Your task to perform on an android device: turn notification dots off Image 0: 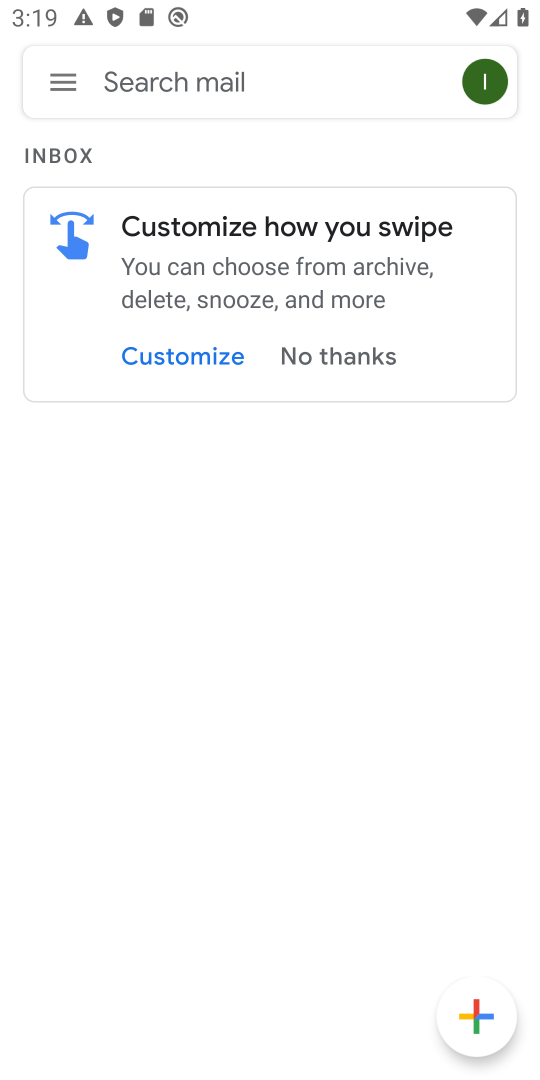
Step 0: press home button
Your task to perform on an android device: turn notification dots off Image 1: 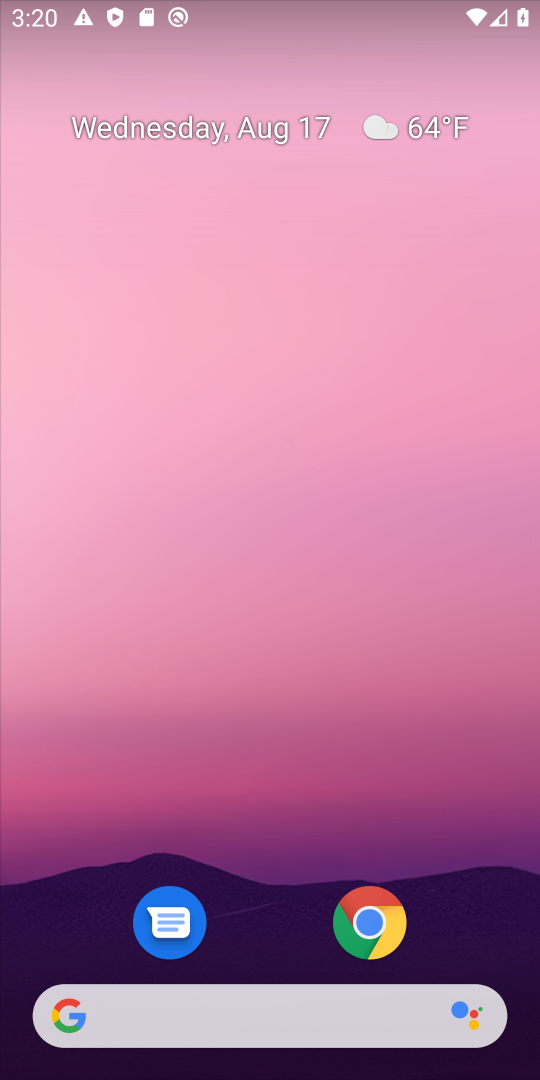
Step 1: drag from (277, 940) to (512, 46)
Your task to perform on an android device: turn notification dots off Image 2: 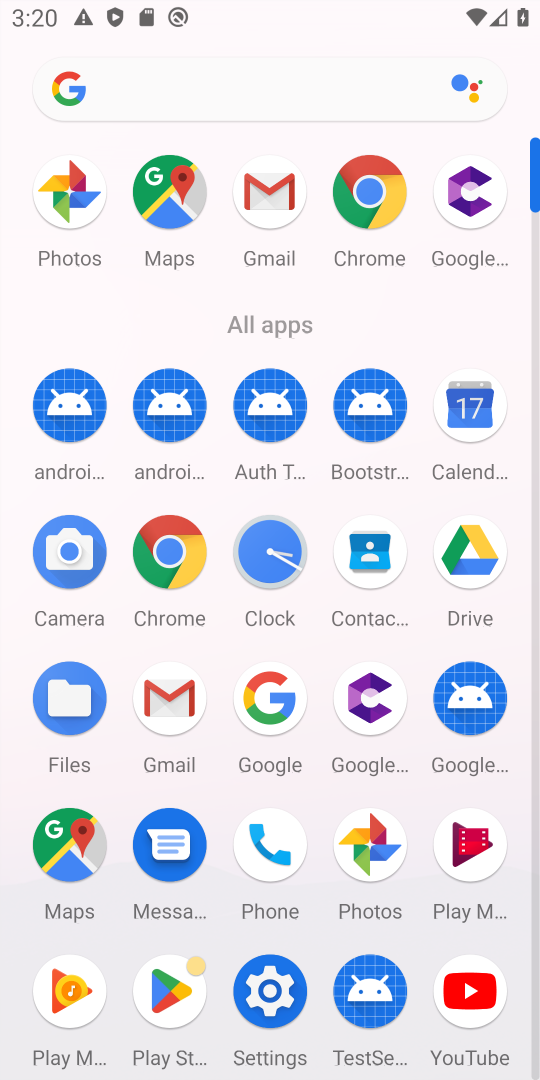
Step 2: click (253, 1041)
Your task to perform on an android device: turn notification dots off Image 3: 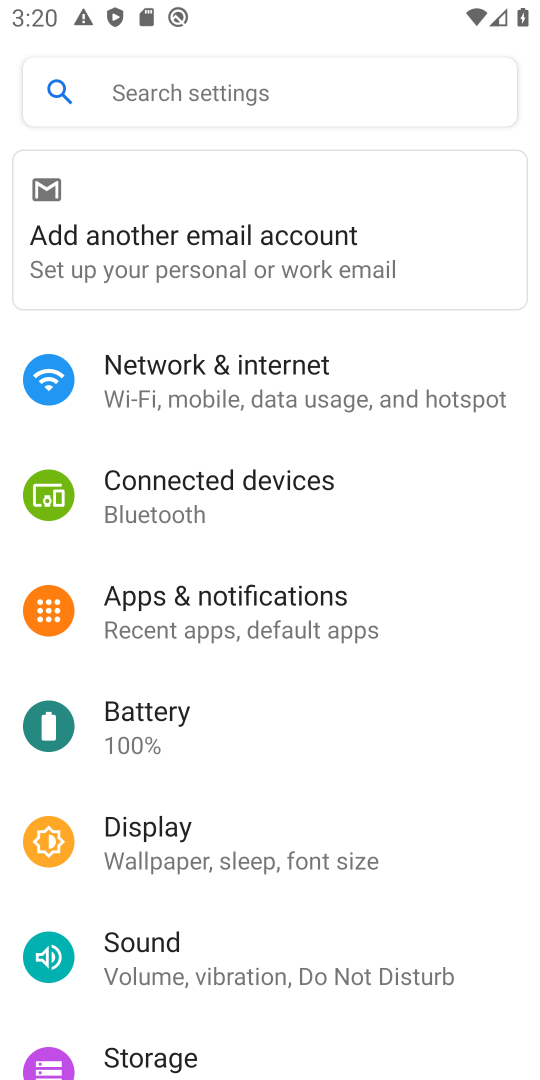
Step 3: click (302, 611)
Your task to perform on an android device: turn notification dots off Image 4: 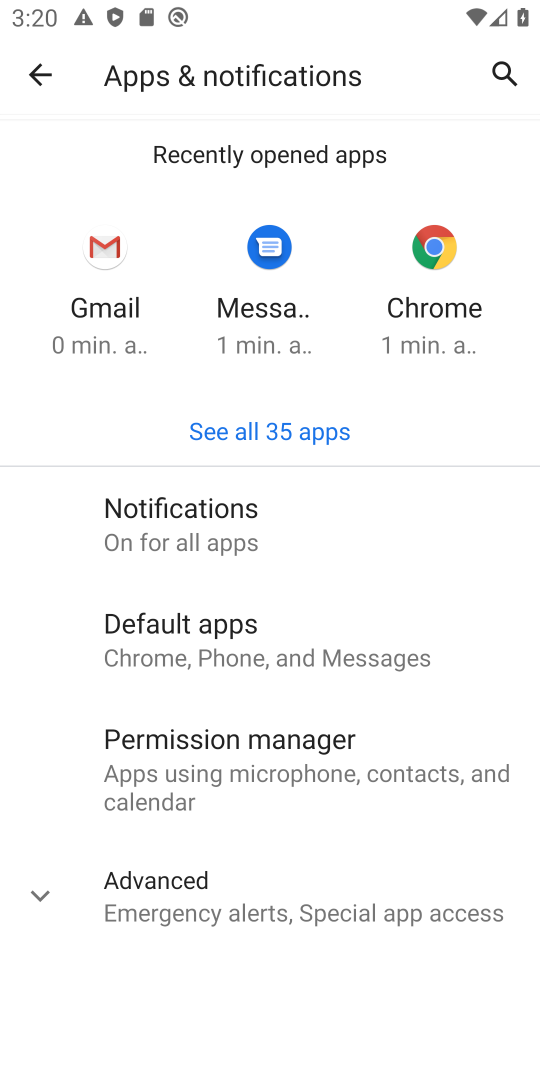
Step 4: click (125, 522)
Your task to perform on an android device: turn notification dots off Image 5: 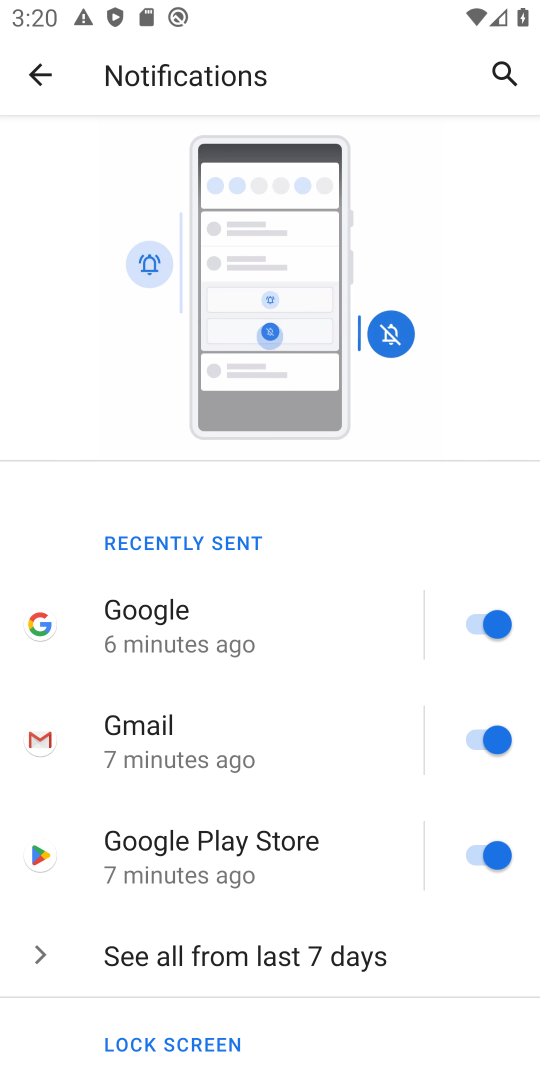
Step 5: drag from (47, 1051) to (217, 469)
Your task to perform on an android device: turn notification dots off Image 6: 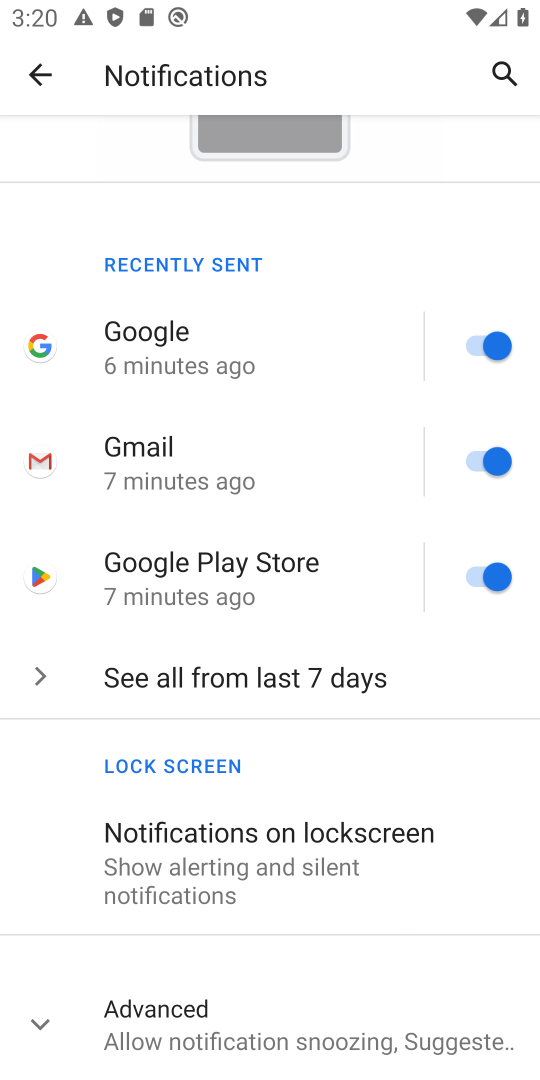
Step 6: click (273, 1012)
Your task to perform on an android device: turn notification dots off Image 7: 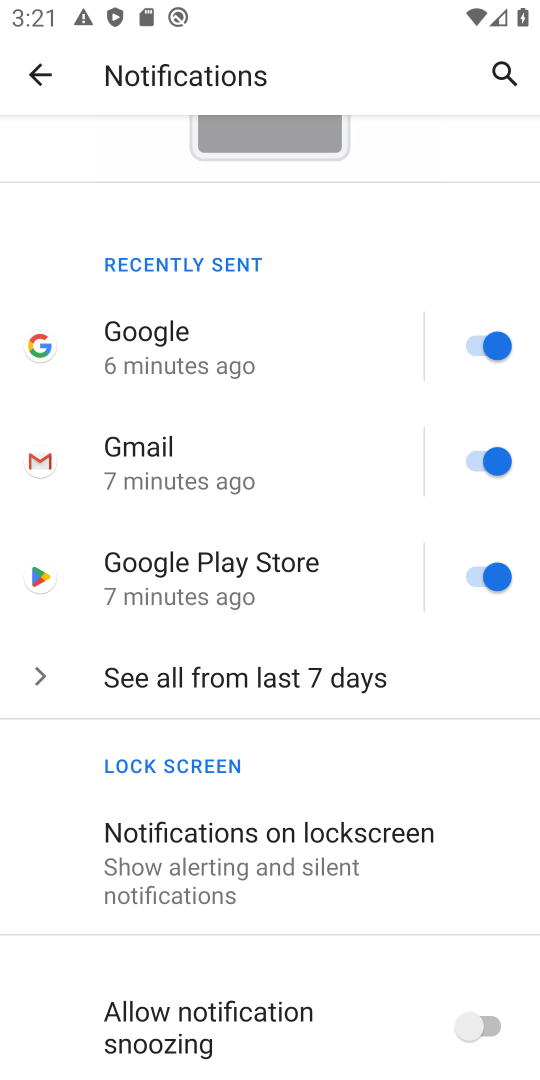
Step 7: drag from (273, 1012) to (332, 421)
Your task to perform on an android device: turn notification dots off Image 8: 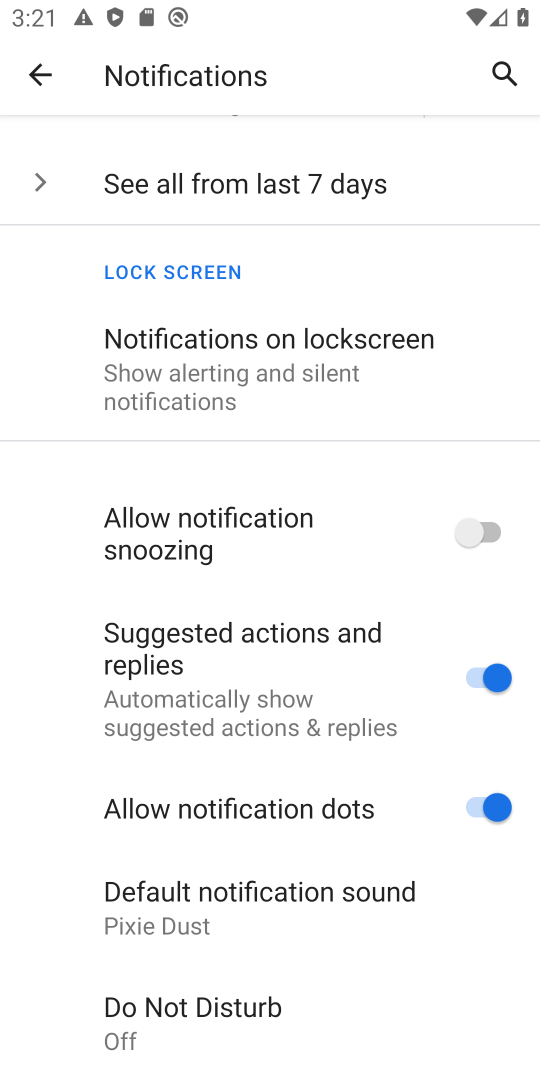
Step 8: drag from (263, 957) to (157, 154)
Your task to perform on an android device: turn notification dots off Image 9: 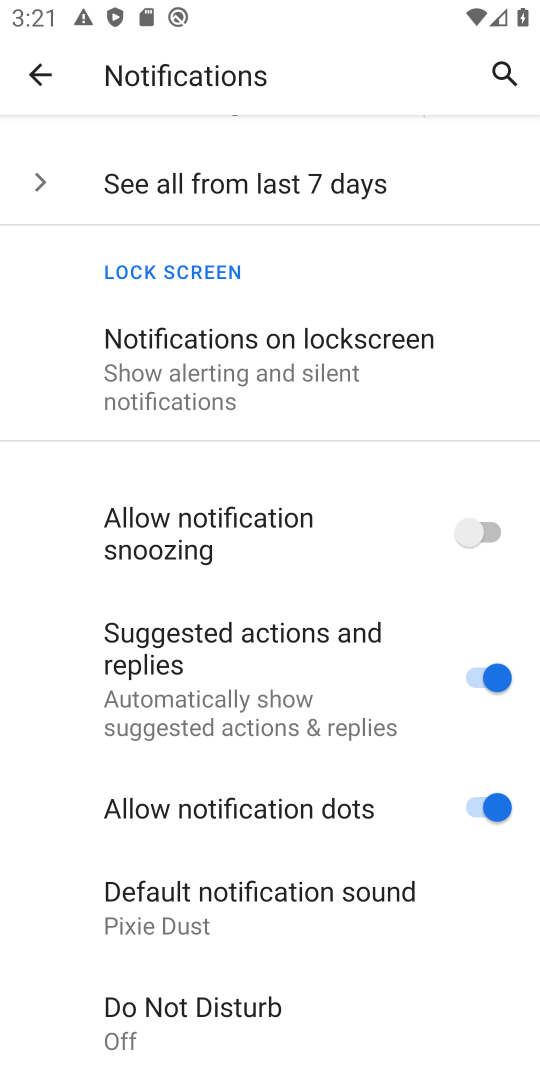
Step 9: click (475, 801)
Your task to perform on an android device: turn notification dots off Image 10: 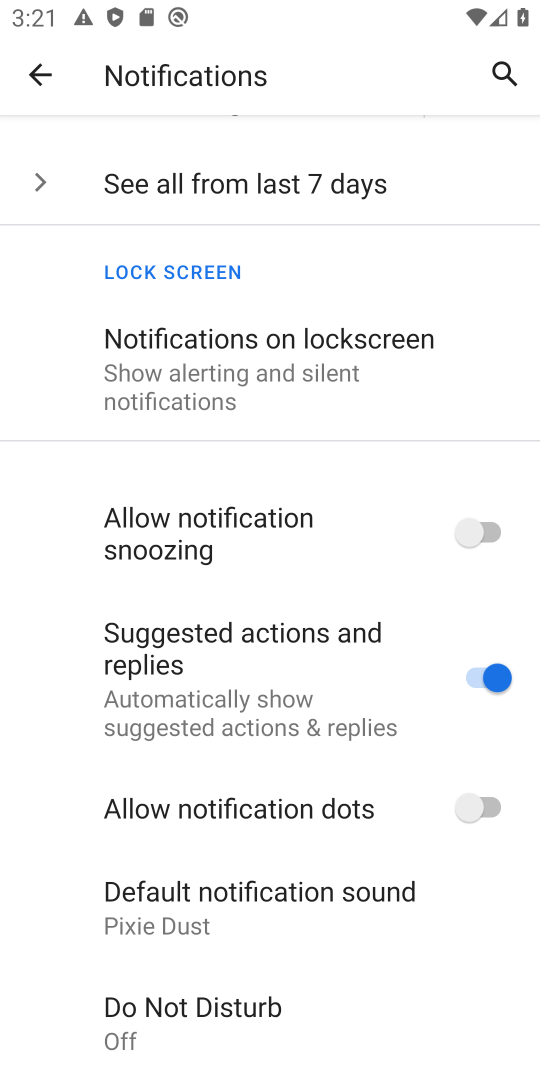
Step 10: task complete